Your task to perform on an android device: turn on the 12-hour format for clock Image 0: 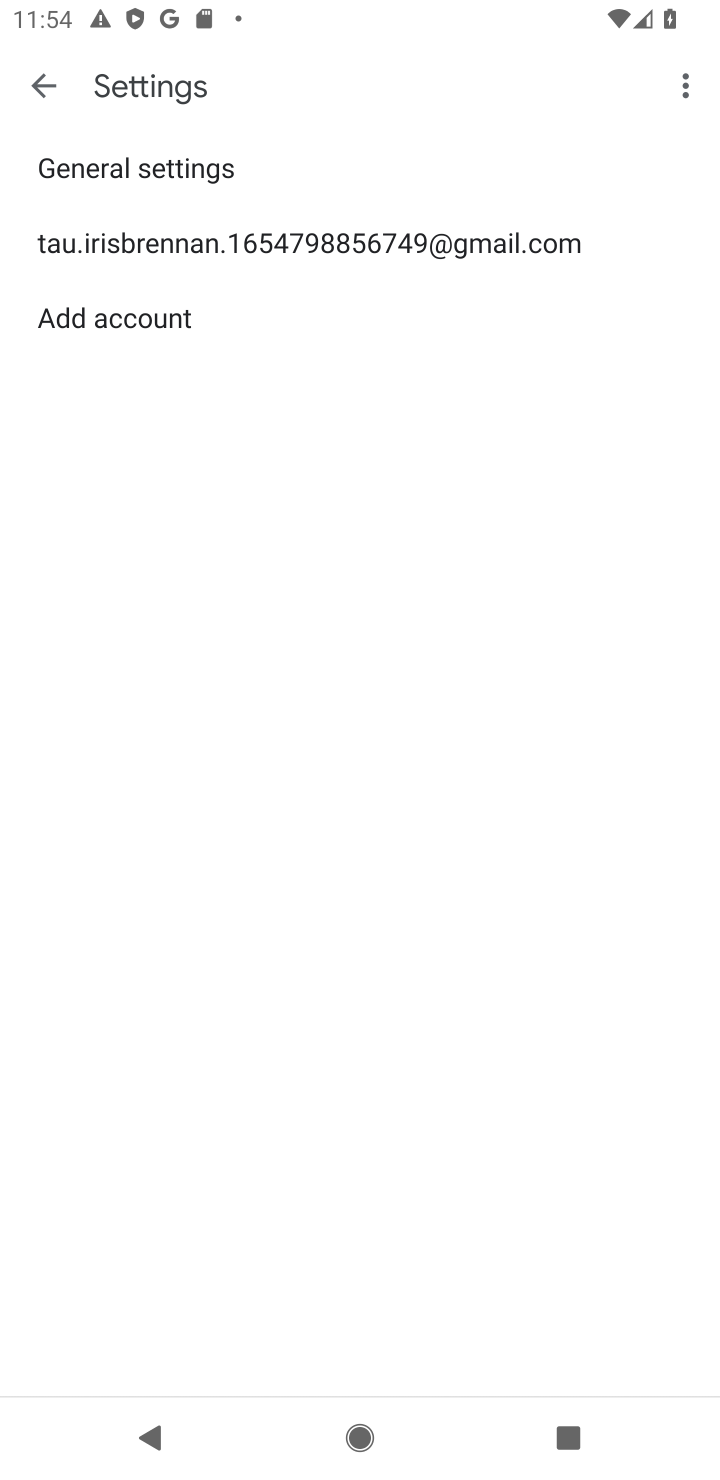
Step 0: press home button
Your task to perform on an android device: turn on the 12-hour format for clock Image 1: 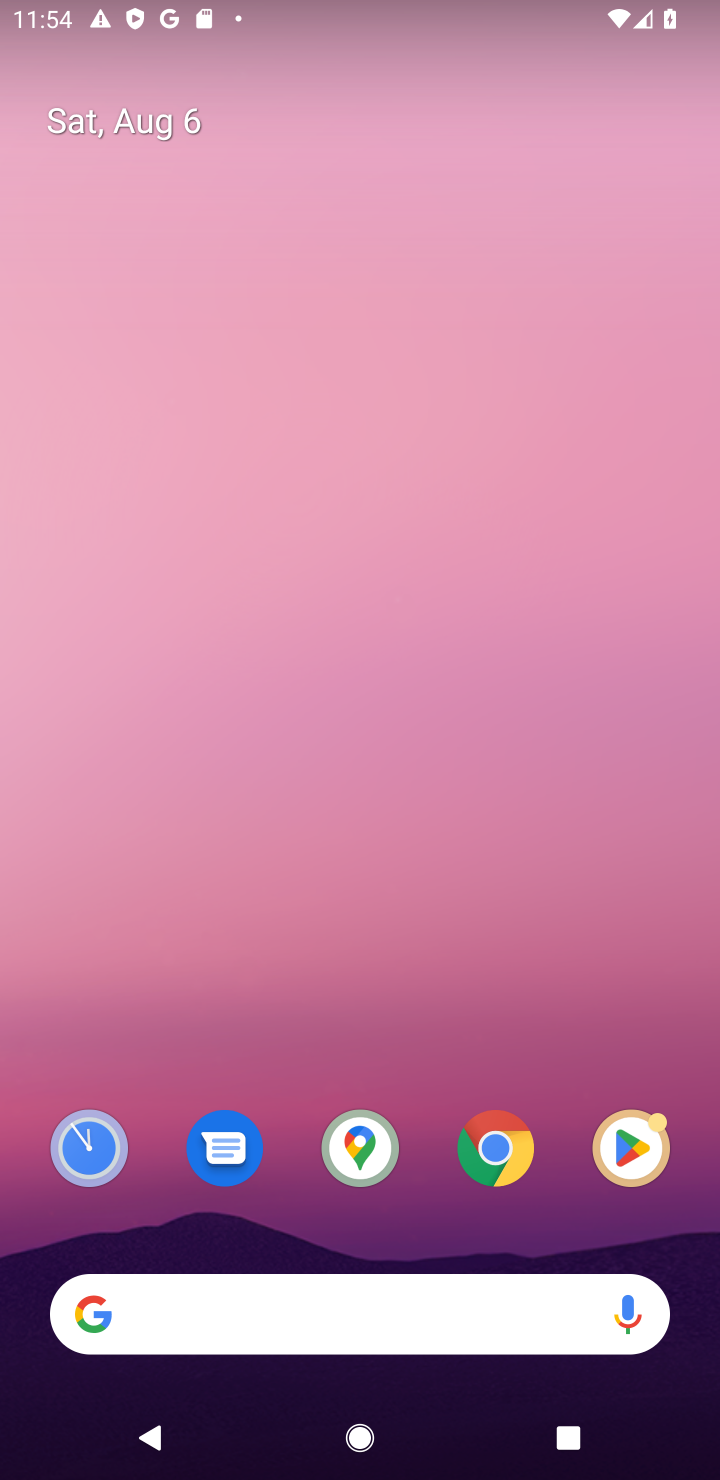
Step 1: click (90, 1132)
Your task to perform on an android device: turn on the 12-hour format for clock Image 2: 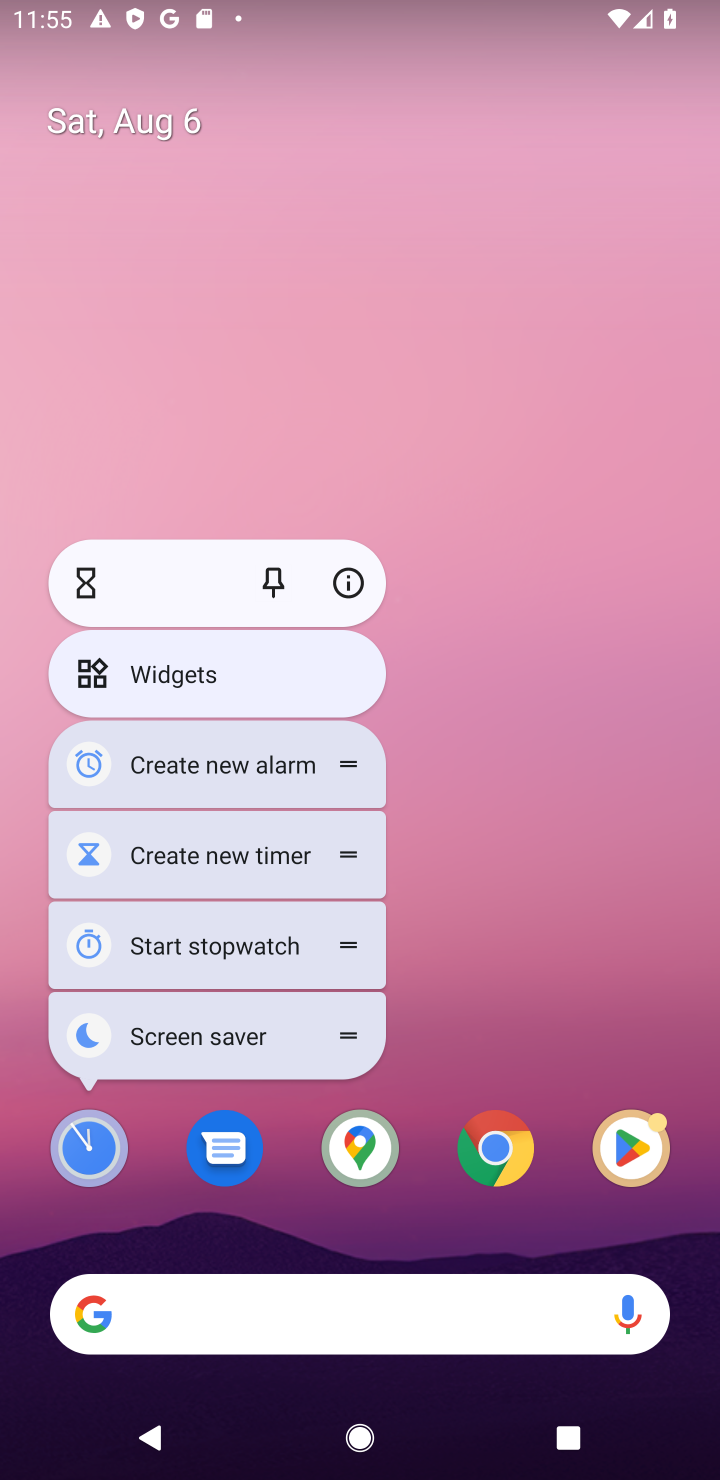
Step 2: click (106, 1162)
Your task to perform on an android device: turn on the 12-hour format for clock Image 3: 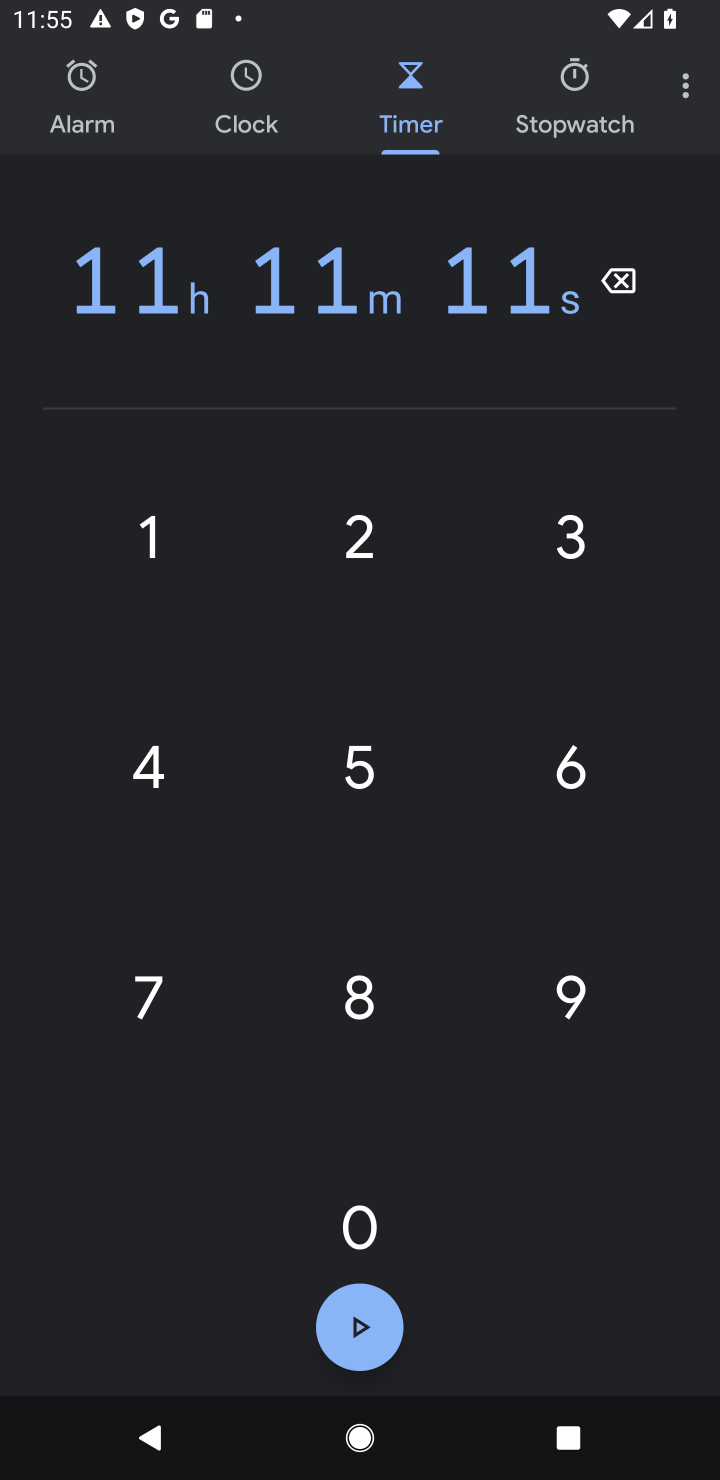
Step 3: click (678, 73)
Your task to perform on an android device: turn on the 12-hour format for clock Image 4: 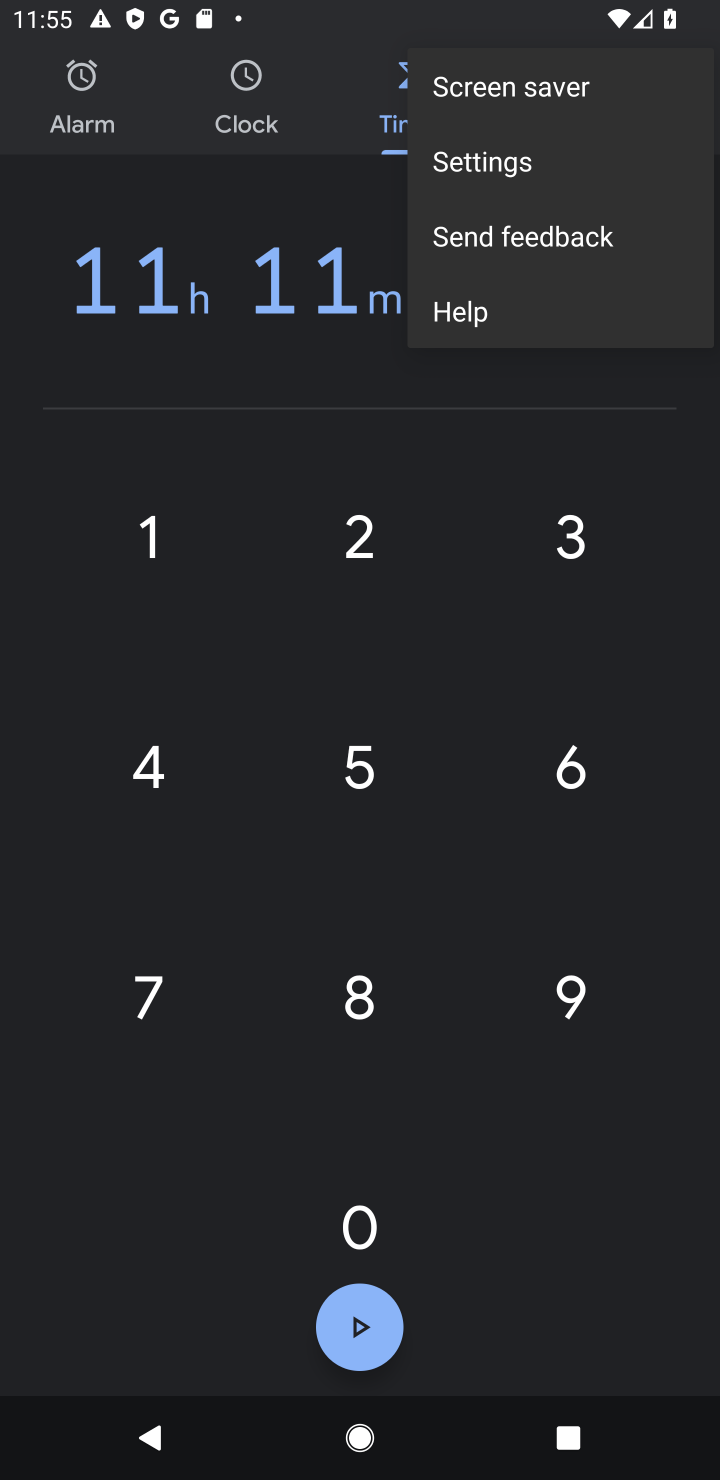
Step 4: click (491, 158)
Your task to perform on an android device: turn on the 12-hour format for clock Image 5: 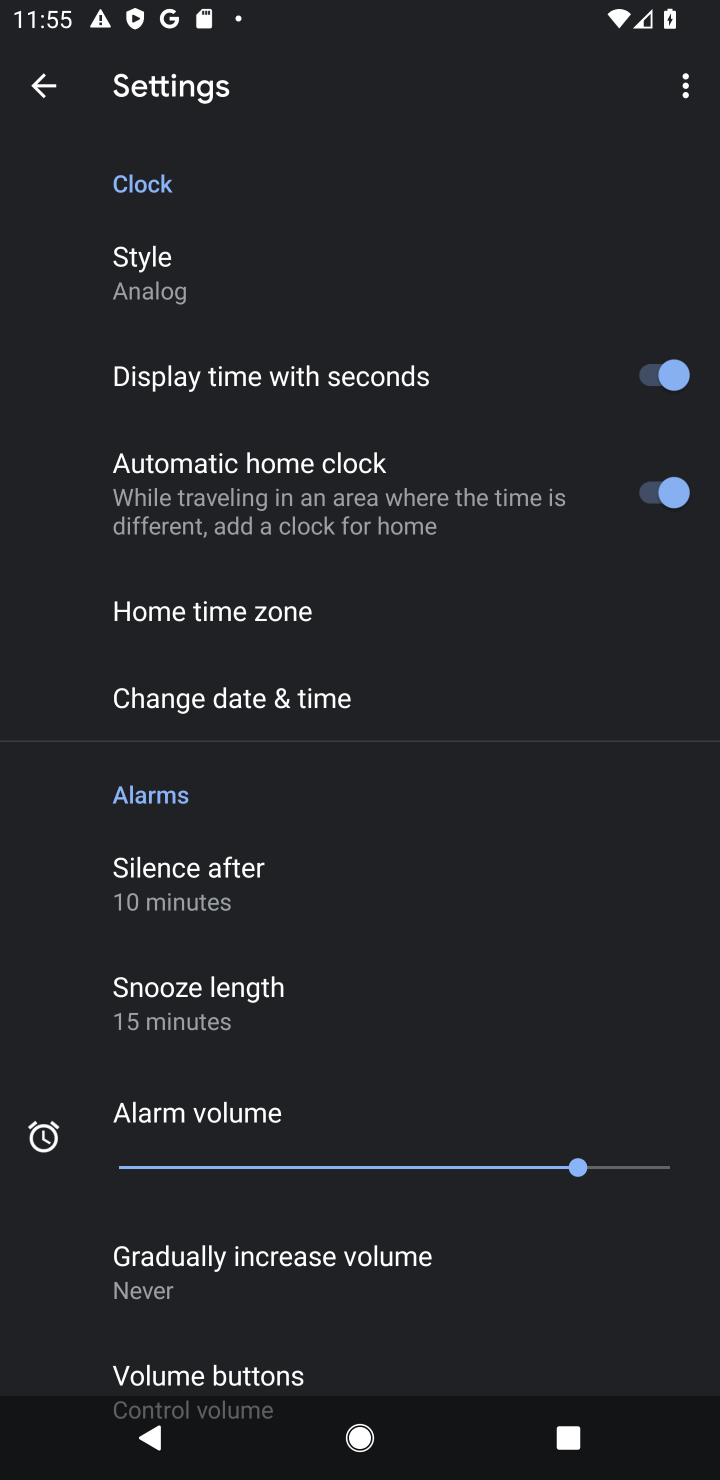
Step 5: click (256, 692)
Your task to perform on an android device: turn on the 12-hour format for clock Image 6: 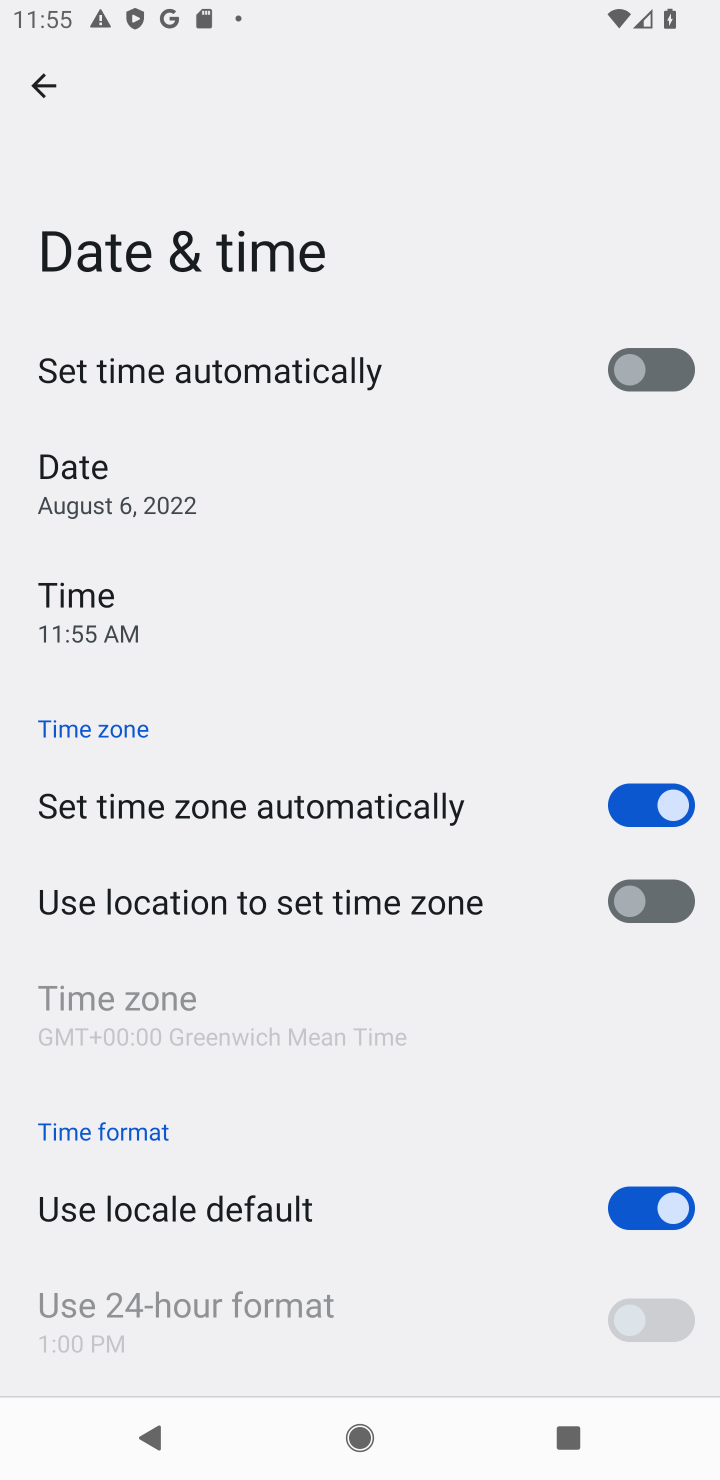
Step 6: task complete